Your task to perform on an android device: Google the capital of the United States Image 0: 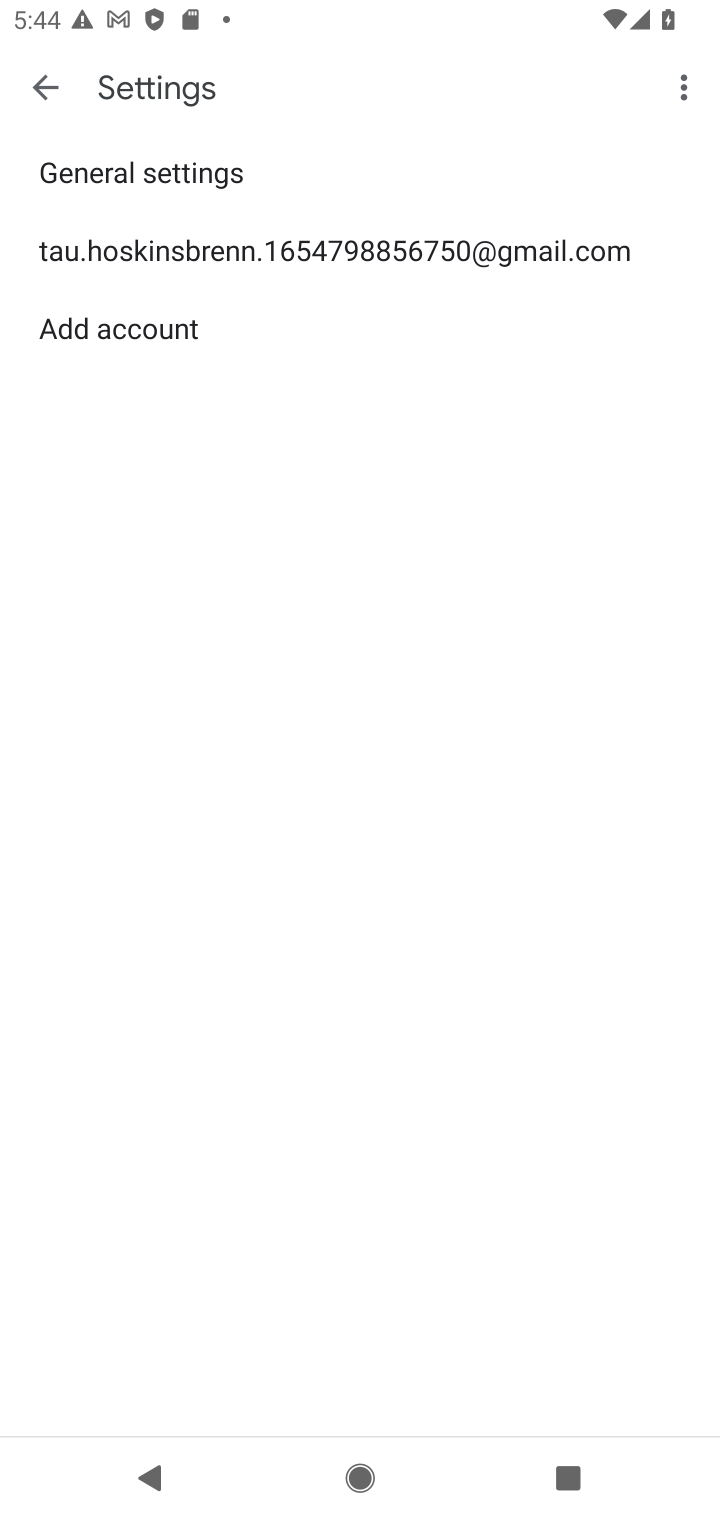
Step 0: press home button
Your task to perform on an android device: Google the capital of the United States Image 1: 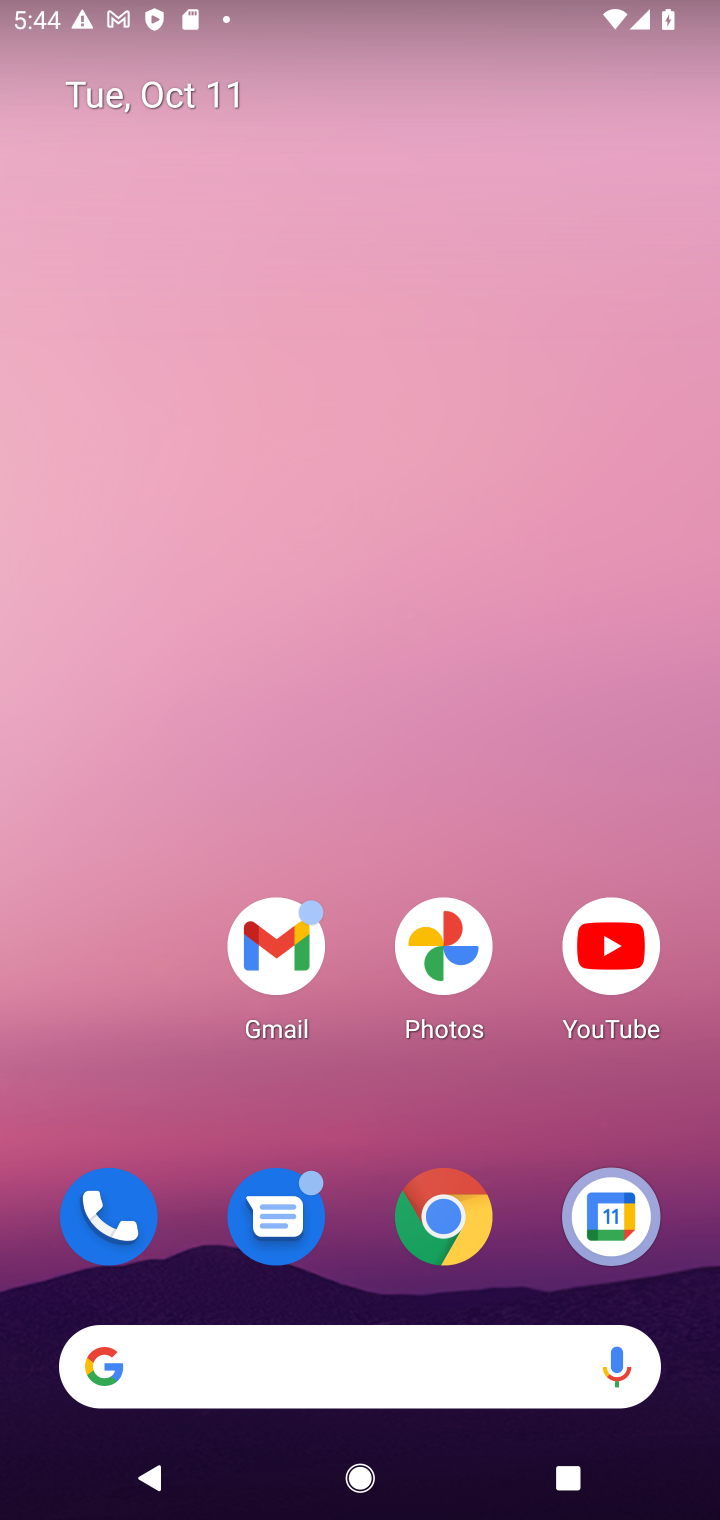
Step 1: click (443, 1216)
Your task to perform on an android device: Google the capital of the United States Image 2: 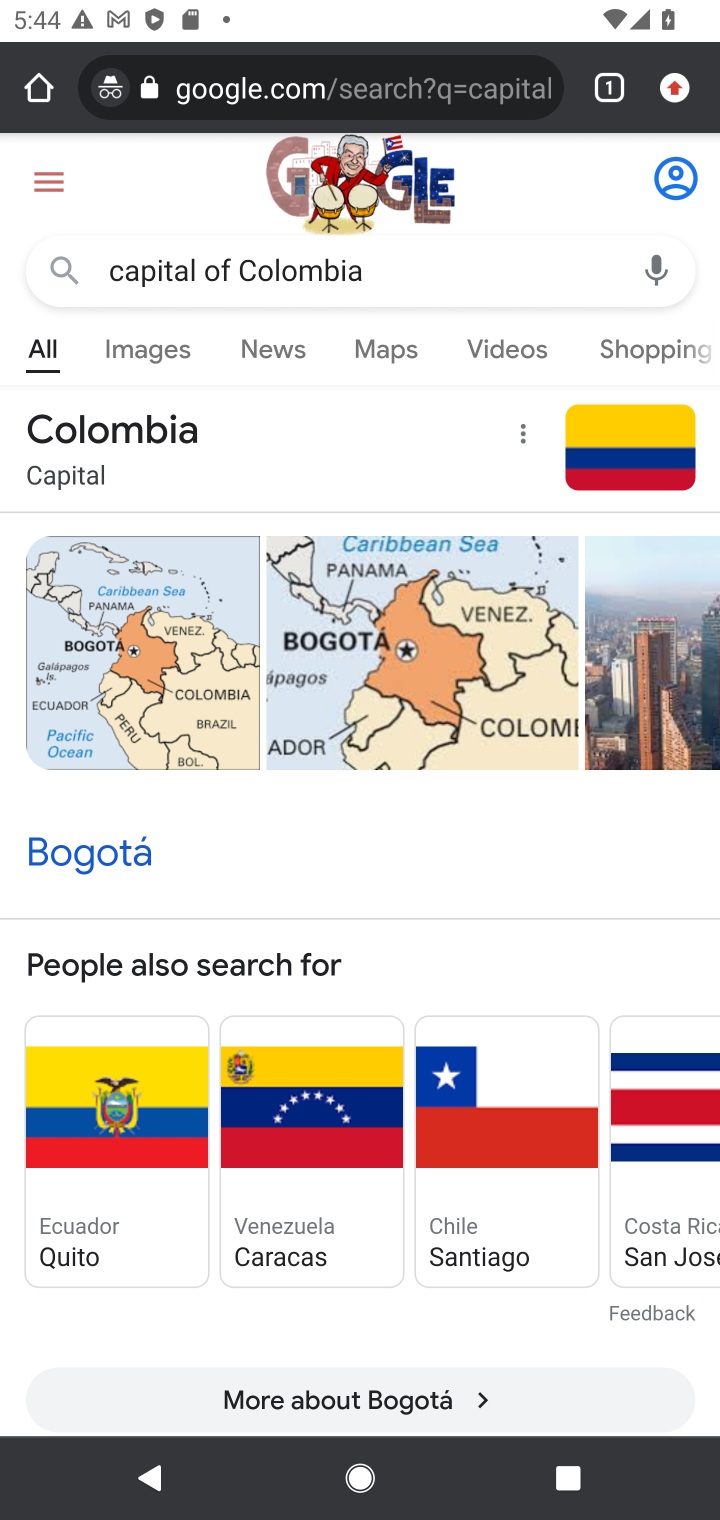
Step 2: click (294, 73)
Your task to perform on an android device: Google the capital of the United States Image 3: 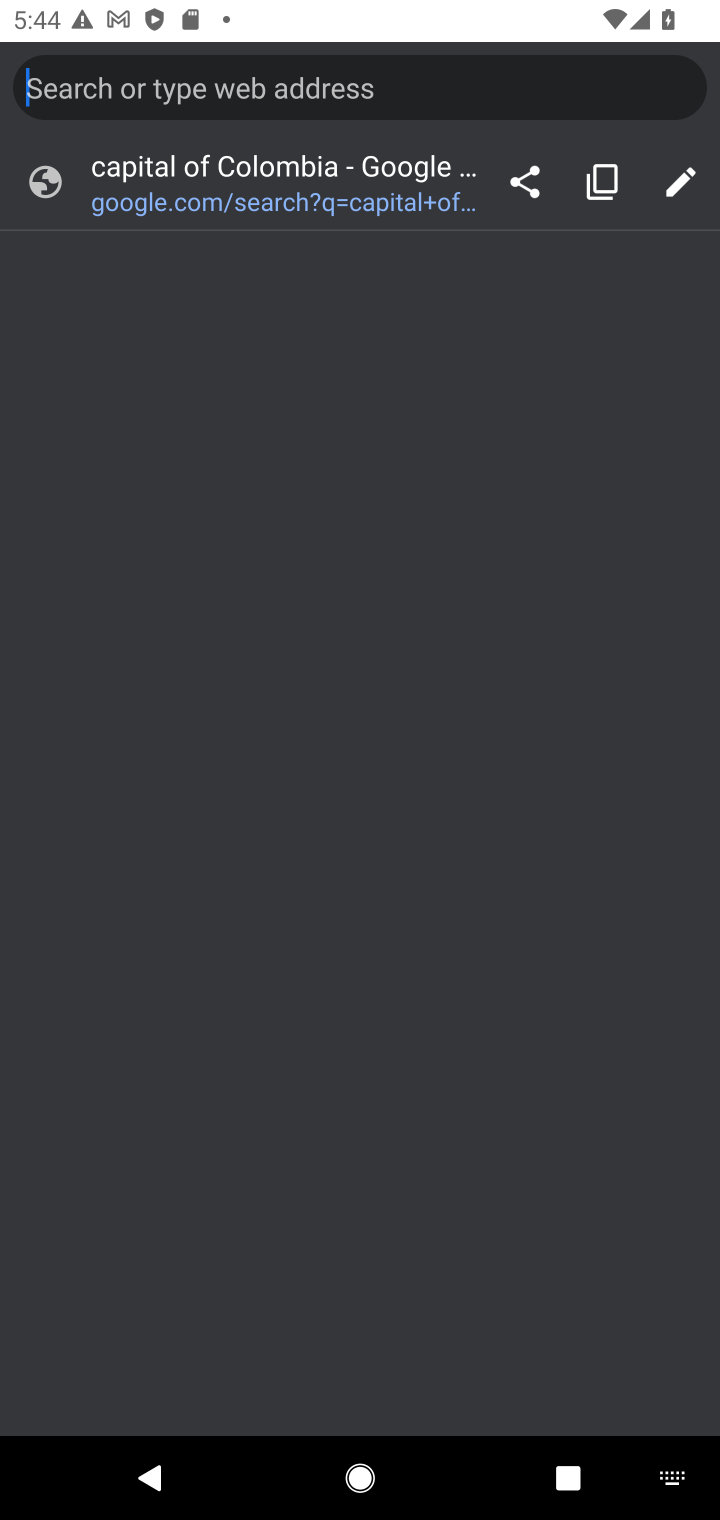
Step 3: type "Capital of the United States"
Your task to perform on an android device: Google the capital of the United States Image 4: 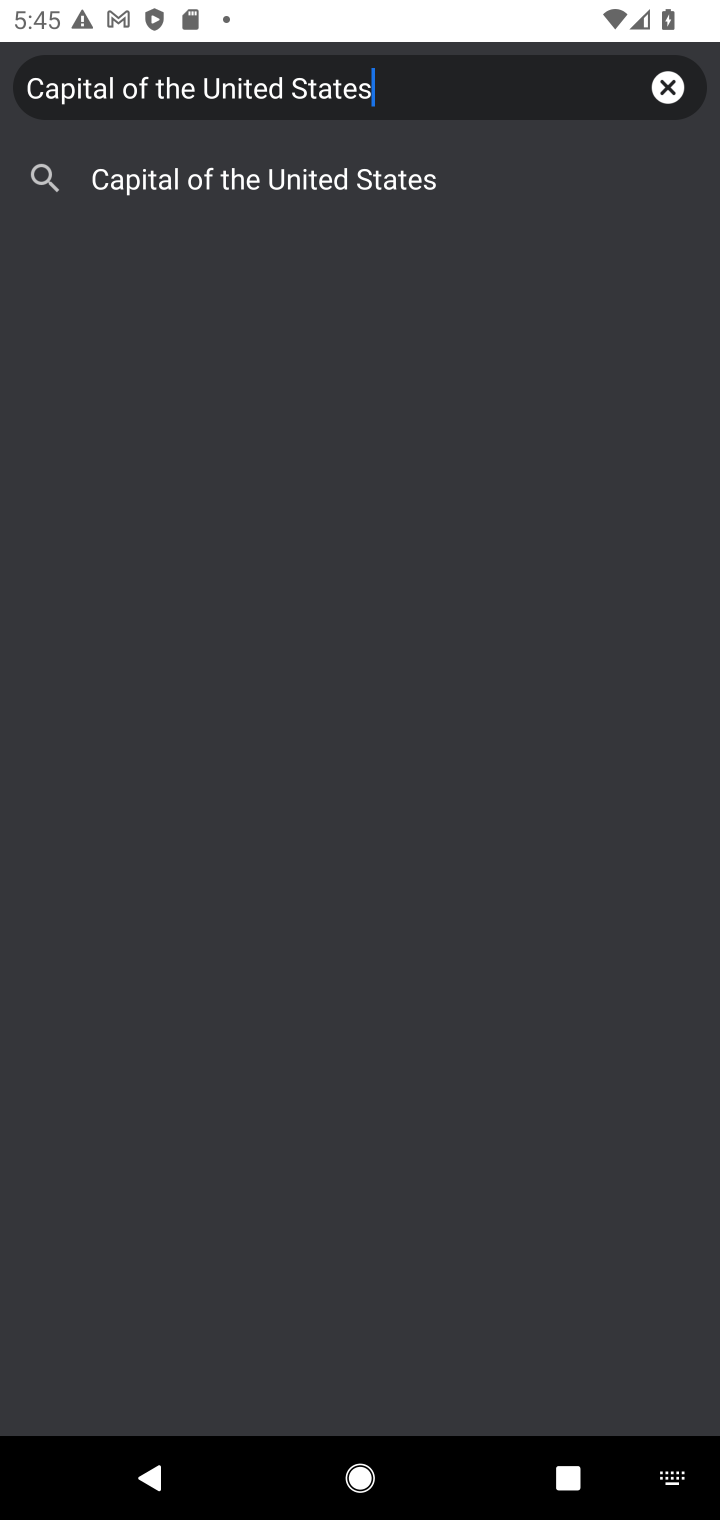
Step 4: click (390, 192)
Your task to perform on an android device: Google the capital of the United States Image 5: 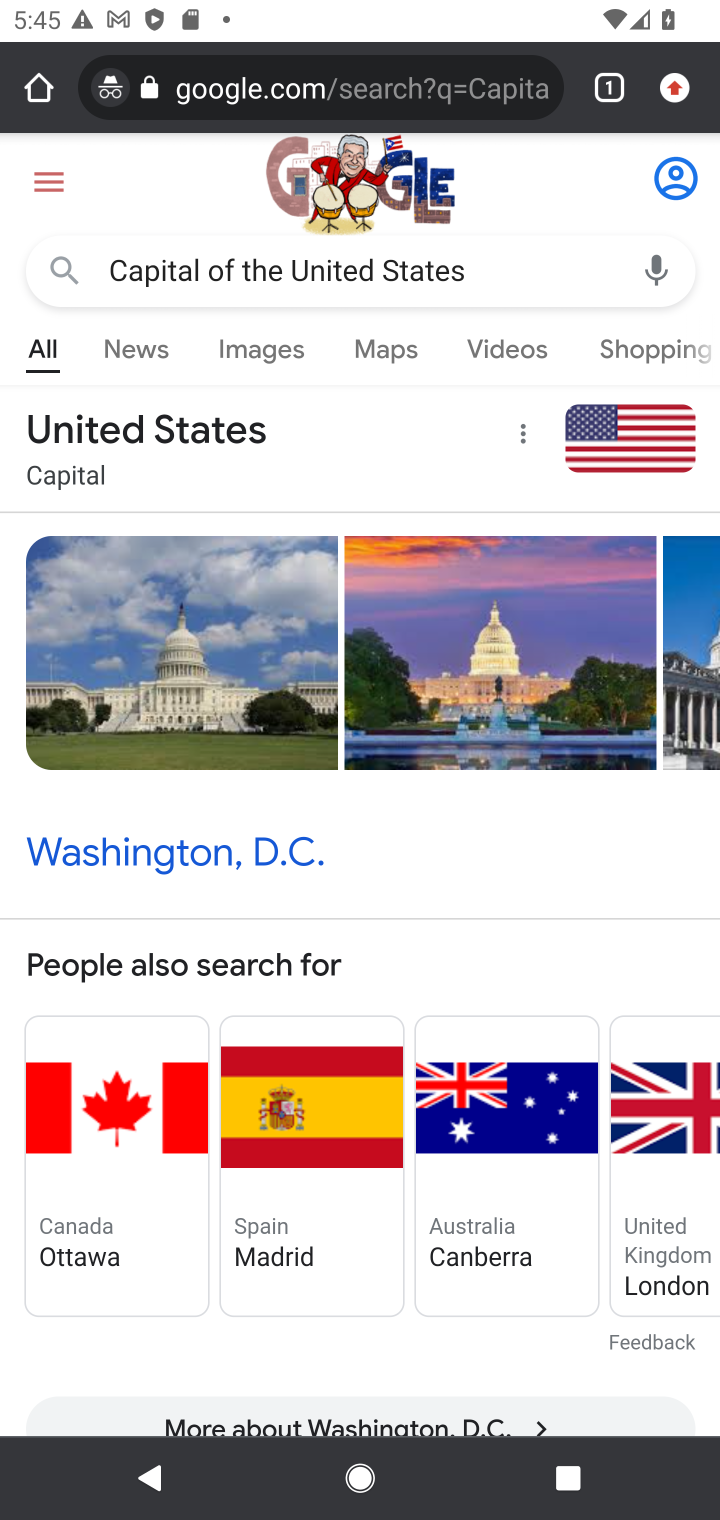
Step 5: task complete